Your task to perform on an android device: clear history in the chrome app Image 0: 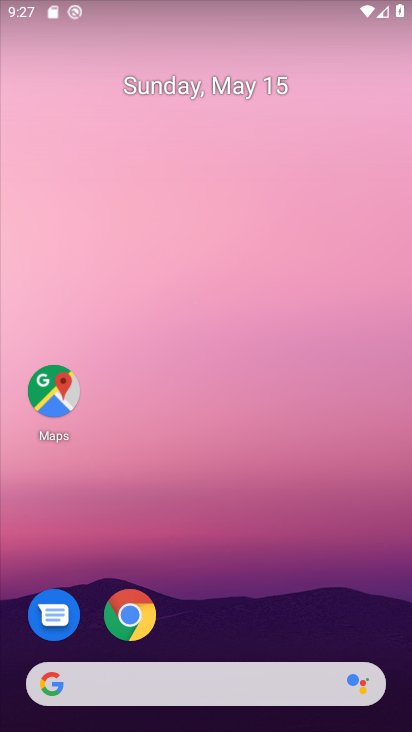
Step 0: click (141, 612)
Your task to perform on an android device: clear history in the chrome app Image 1: 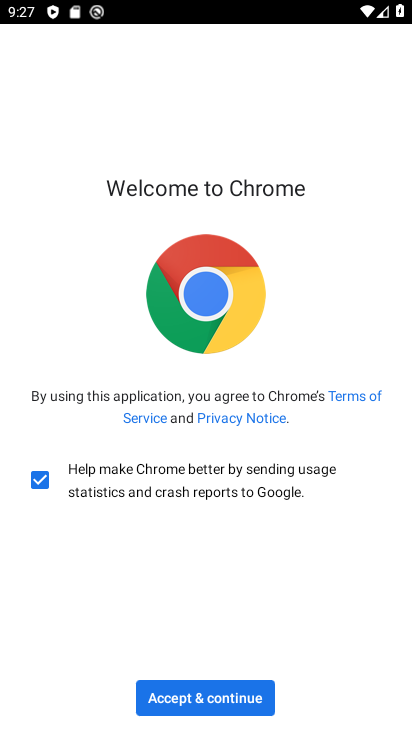
Step 1: click (225, 696)
Your task to perform on an android device: clear history in the chrome app Image 2: 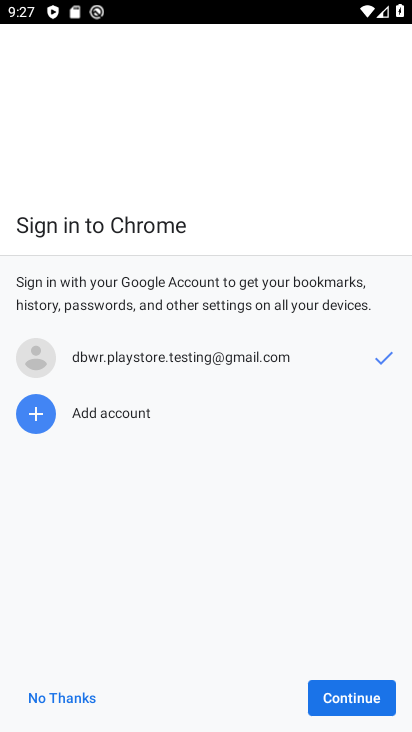
Step 2: click (344, 703)
Your task to perform on an android device: clear history in the chrome app Image 3: 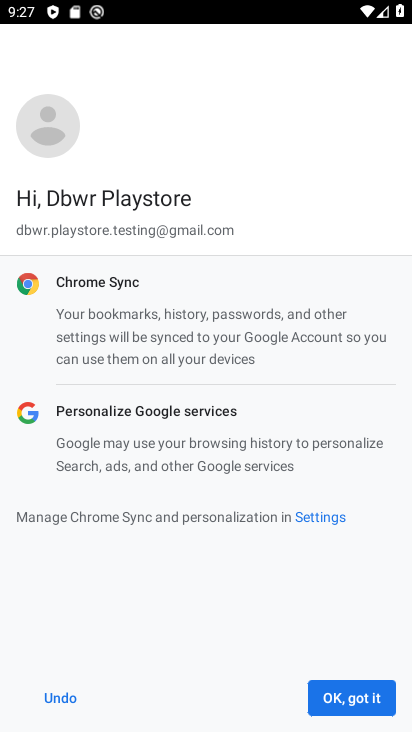
Step 3: click (345, 703)
Your task to perform on an android device: clear history in the chrome app Image 4: 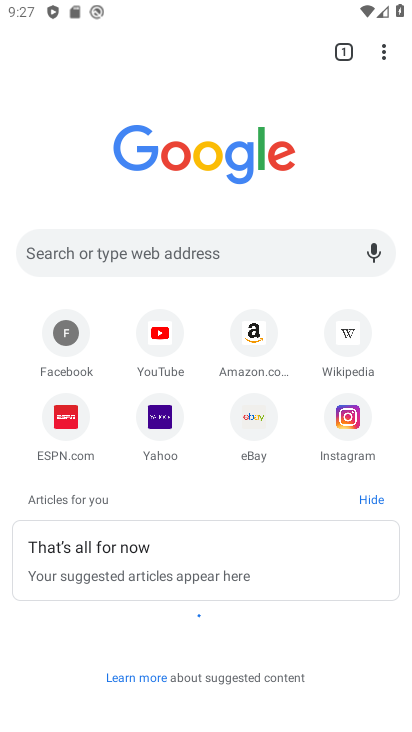
Step 4: task complete